Your task to perform on an android device: Go to network settings Image 0: 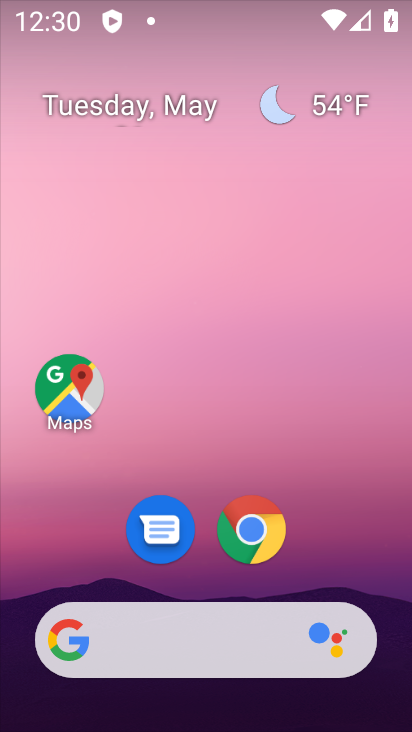
Step 0: drag from (309, 496) to (332, 226)
Your task to perform on an android device: Go to network settings Image 1: 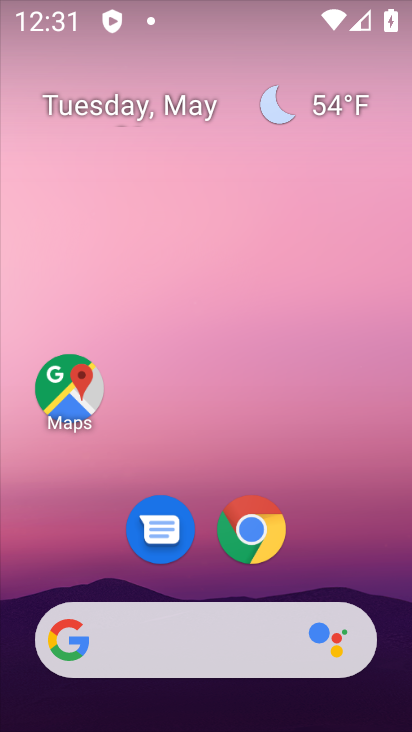
Step 1: drag from (329, 576) to (329, 156)
Your task to perform on an android device: Go to network settings Image 2: 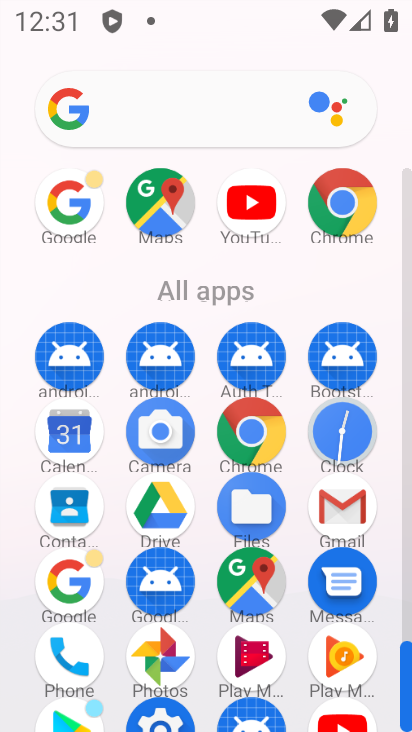
Step 2: drag from (208, 542) to (246, 256)
Your task to perform on an android device: Go to network settings Image 3: 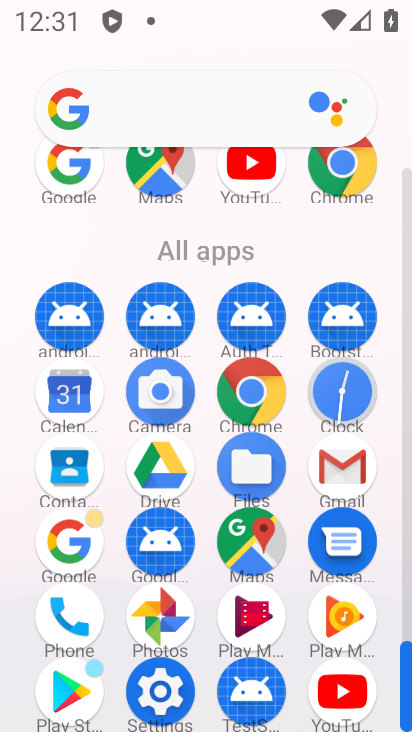
Step 3: click (160, 667)
Your task to perform on an android device: Go to network settings Image 4: 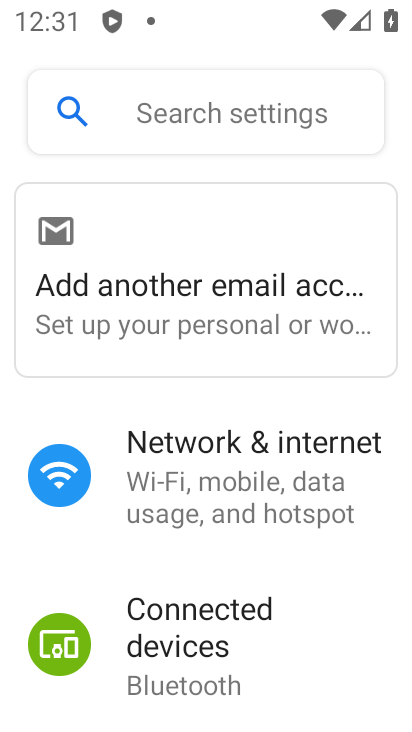
Step 4: click (197, 473)
Your task to perform on an android device: Go to network settings Image 5: 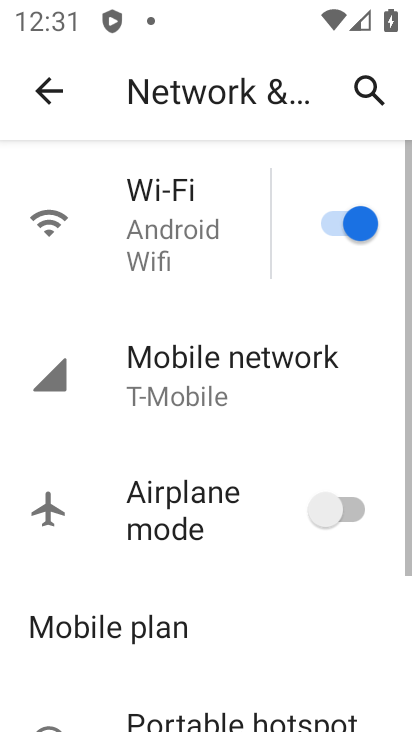
Step 5: click (170, 387)
Your task to perform on an android device: Go to network settings Image 6: 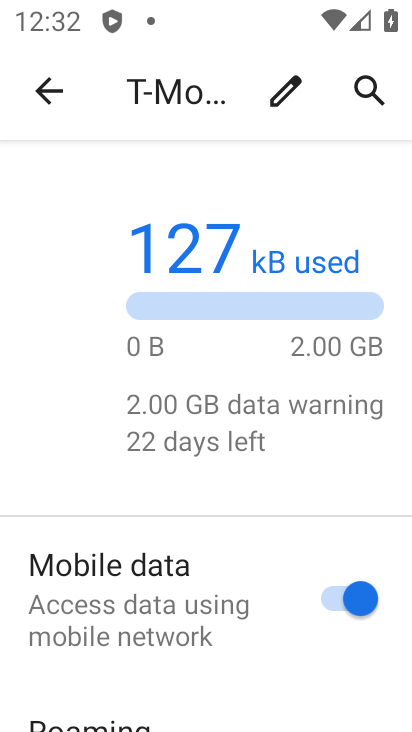
Step 6: task complete